Your task to perform on an android device: Open settings on Google Maps Image 0: 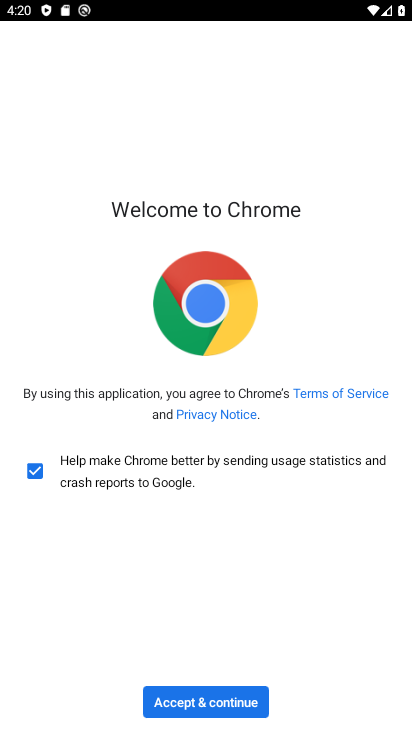
Step 0: press home button
Your task to perform on an android device: Open settings on Google Maps Image 1: 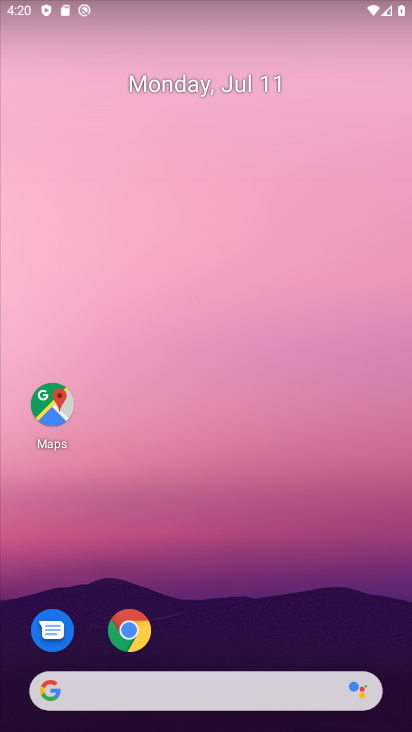
Step 1: drag from (204, 533) to (260, 236)
Your task to perform on an android device: Open settings on Google Maps Image 2: 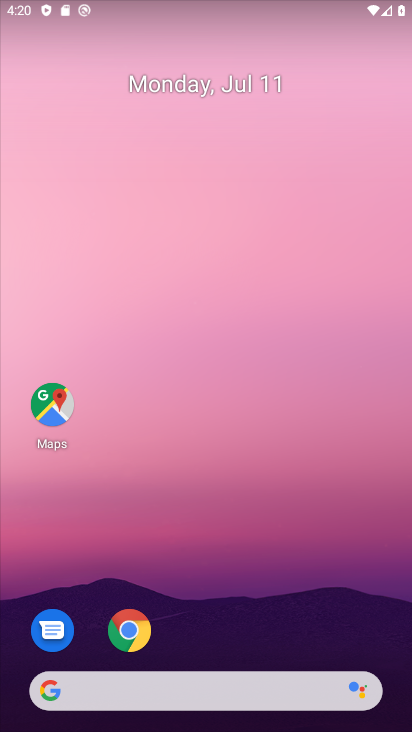
Step 2: drag from (219, 672) to (287, 187)
Your task to perform on an android device: Open settings on Google Maps Image 3: 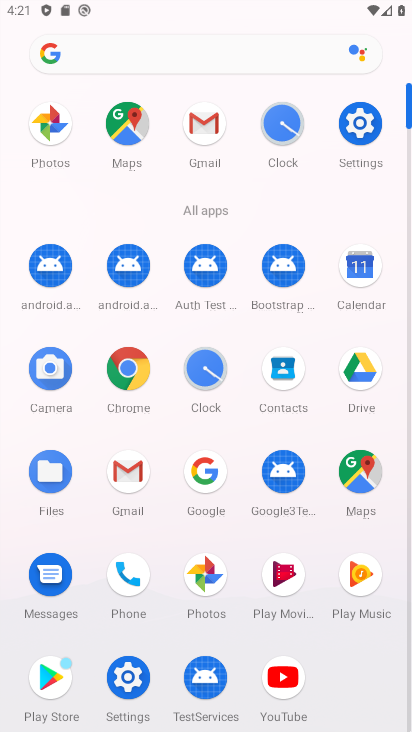
Step 3: click (368, 471)
Your task to perform on an android device: Open settings on Google Maps Image 4: 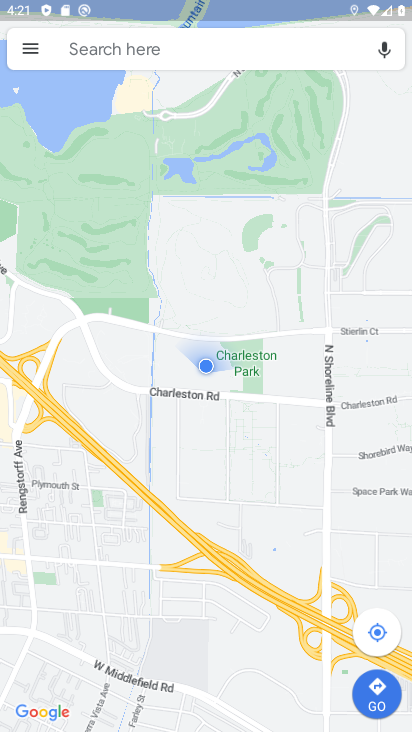
Step 4: click (43, 56)
Your task to perform on an android device: Open settings on Google Maps Image 5: 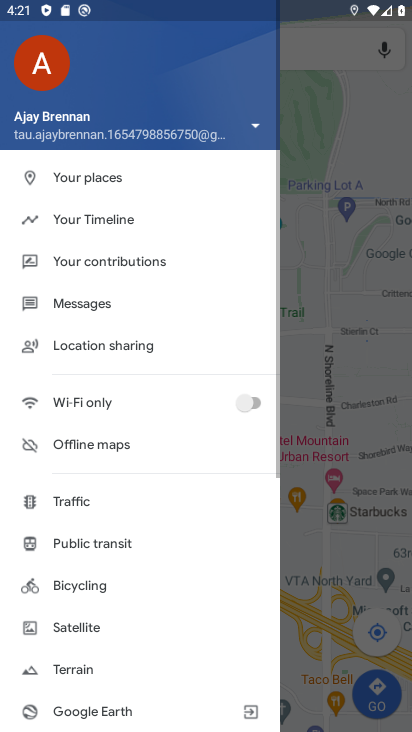
Step 5: drag from (103, 527) to (220, 112)
Your task to perform on an android device: Open settings on Google Maps Image 6: 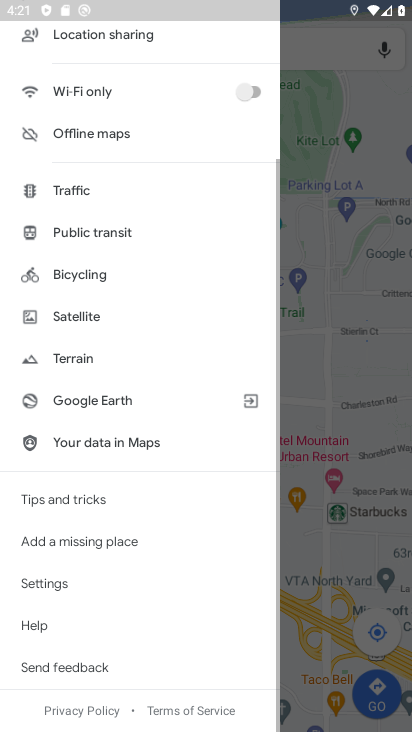
Step 6: drag from (136, 477) to (198, 208)
Your task to perform on an android device: Open settings on Google Maps Image 7: 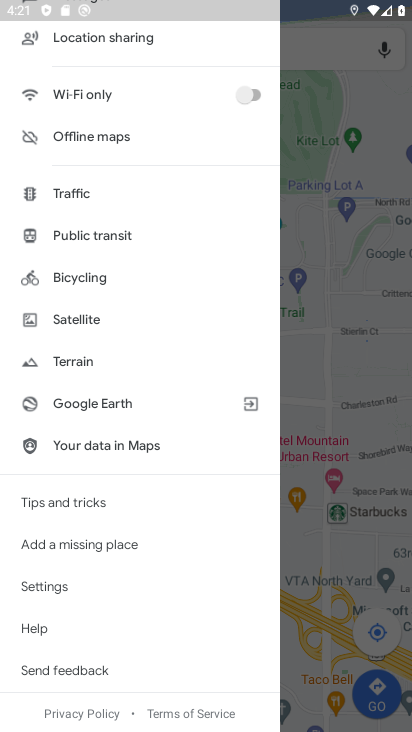
Step 7: click (72, 590)
Your task to perform on an android device: Open settings on Google Maps Image 8: 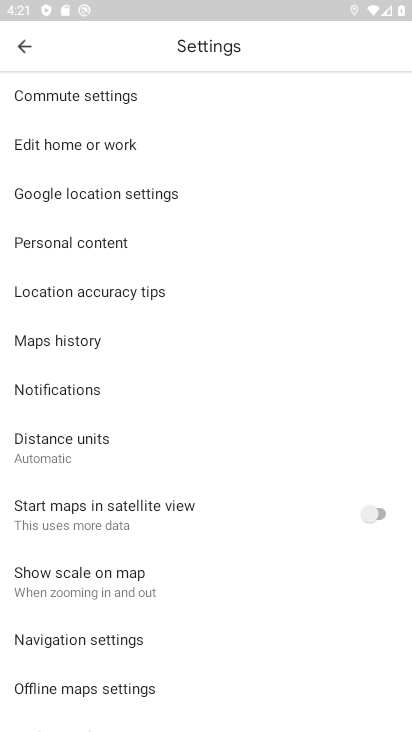
Step 8: task complete